Your task to perform on an android device: Open CNN.com Image 0: 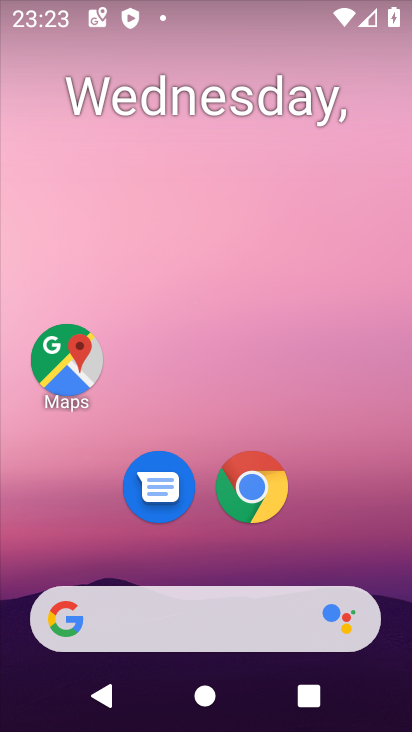
Step 0: click (258, 496)
Your task to perform on an android device: Open CNN.com Image 1: 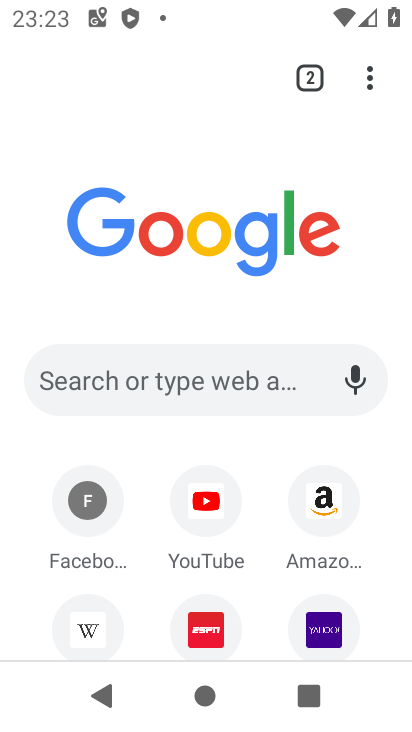
Step 1: click (79, 385)
Your task to perform on an android device: Open CNN.com Image 2: 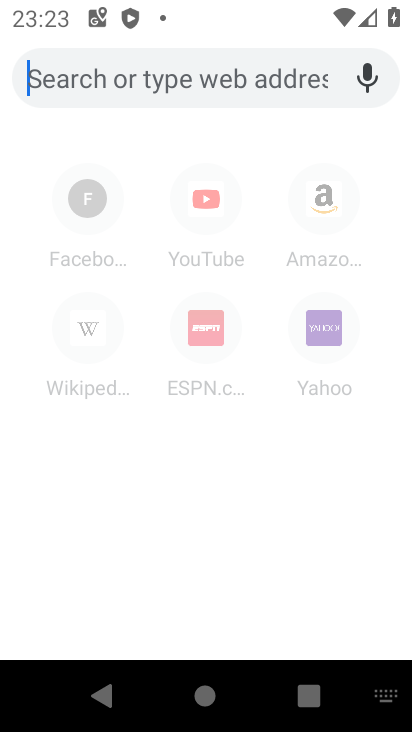
Step 2: type "cnn.com"
Your task to perform on an android device: Open CNN.com Image 3: 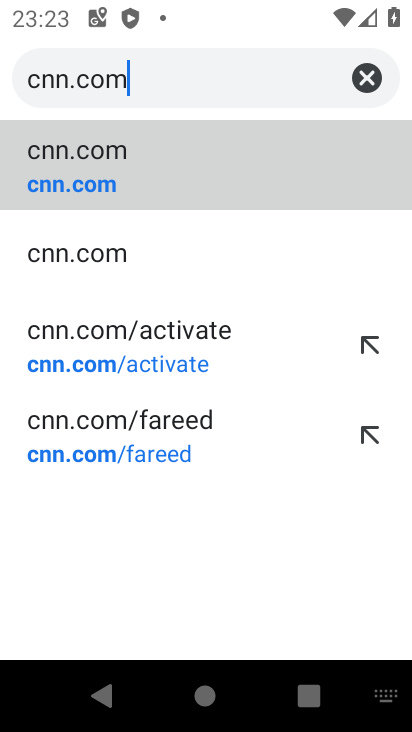
Step 3: click (84, 195)
Your task to perform on an android device: Open CNN.com Image 4: 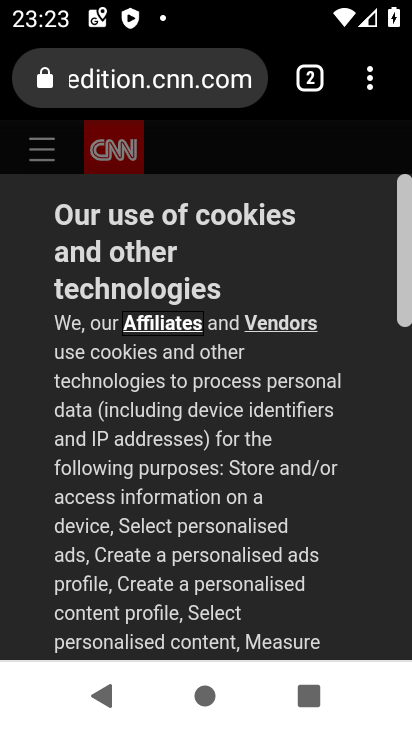
Step 4: task complete